Your task to perform on an android device: manage bookmarks in the chrome app Image 0: 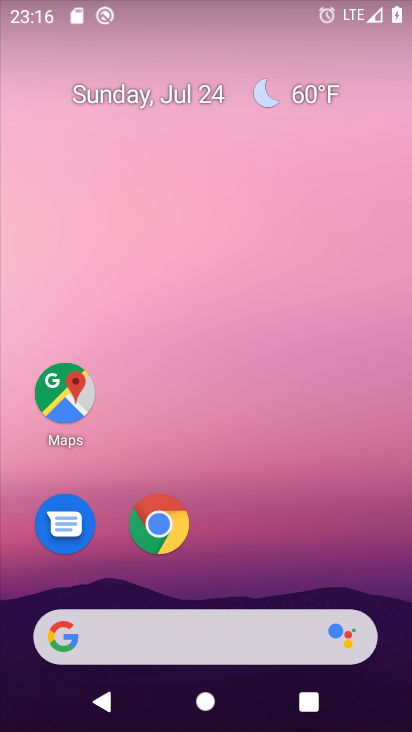
Step 0: click (174, 513)
Your task to perform on an android device: manage bookmarks in the chrome app Image 1: 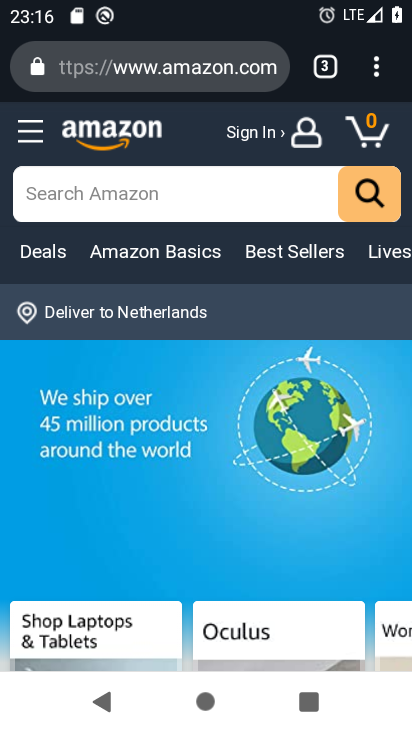
Step 1: click (376, 68)
Your task to perform on an android device: manage bookmarks in the chrome app Image 2: 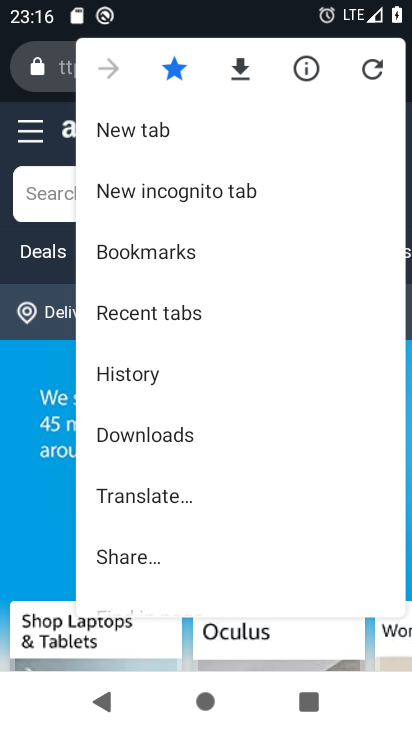
Step 2: click (190, 249)
Your task to perform on an android device: manage bookmarks in the chrome app Image 3: 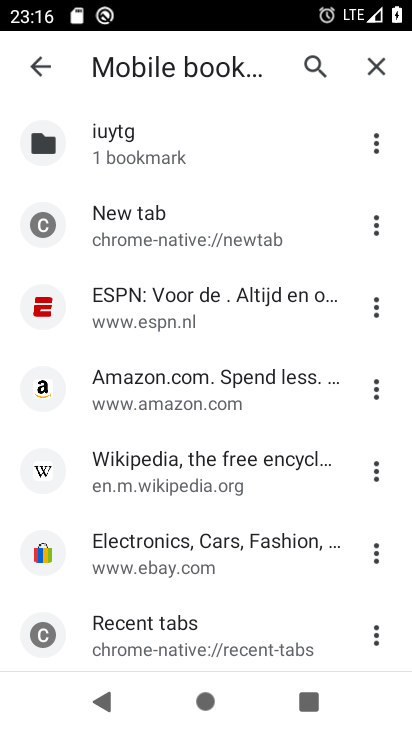
Step 3: click (374, 306)
Your task to perform on an android device: manage bookmarks in the chrome app Image 4: 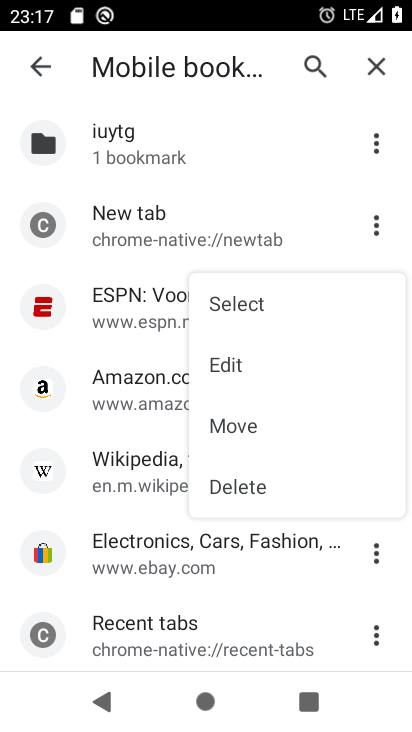
Step 4: click (239, 363)
Your task to perform on an android device: manage bookmarks in the chrome app Image 5: 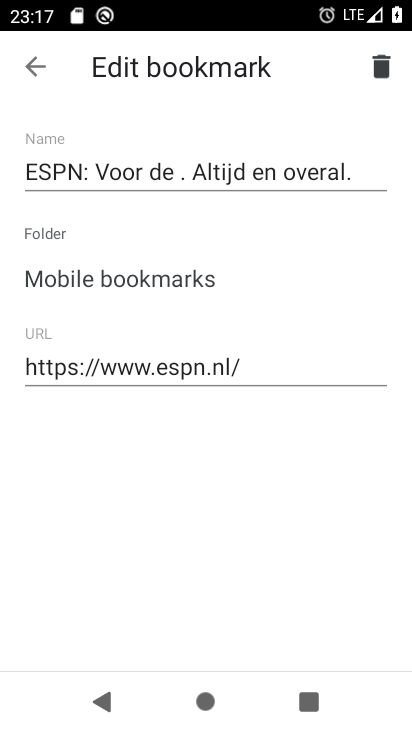
Step 5: task complete